Your task to perform on an android device: Go to CNN.com Image 0: 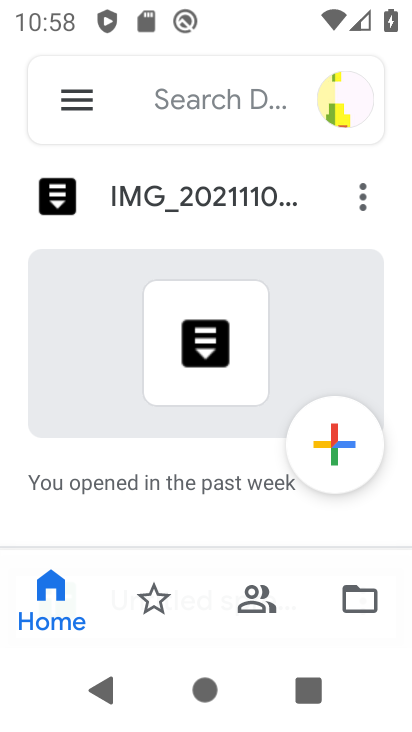
Step 0: press home button
Your task to perform on an android device: Go to CNN.com Image 1: 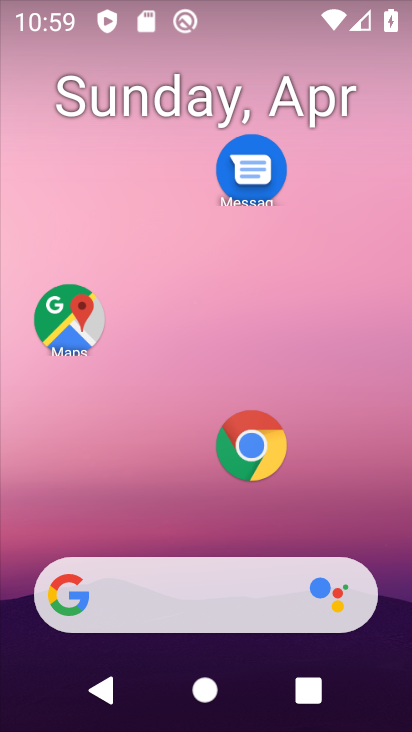
Step 1: drag from (174, 598) to (195, 128)
Your task to perform on an android device: Go to CNN.com Image 2: 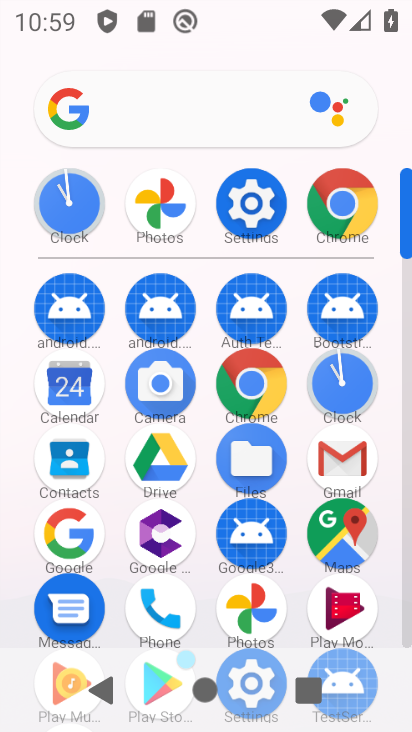
Step 2: click (343, 205)
Your task to perform on an android device: Go to CNN.com Image 3: 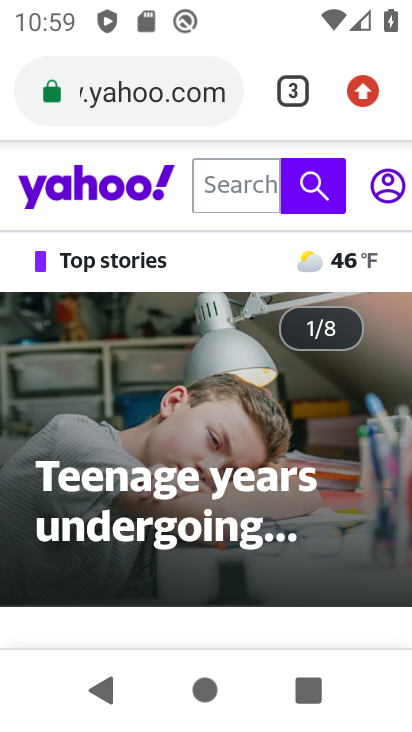
Step 3: click (358, 101)
Your task to perform on an android device: Go to CNN.com Image 4: 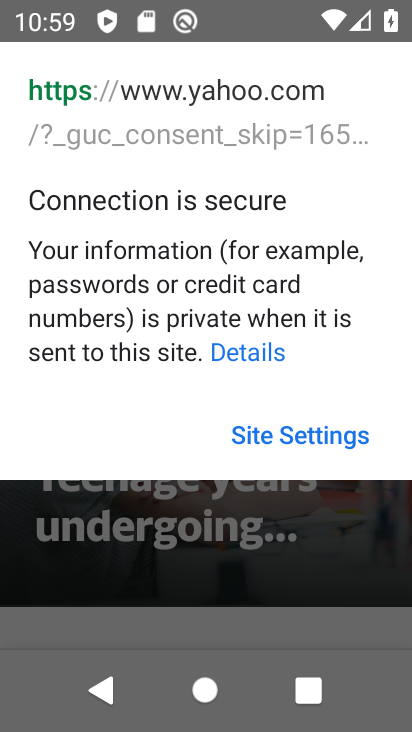
Step 4: press back button
Your task to perform on an android device: Go to CNN.com Image 5: 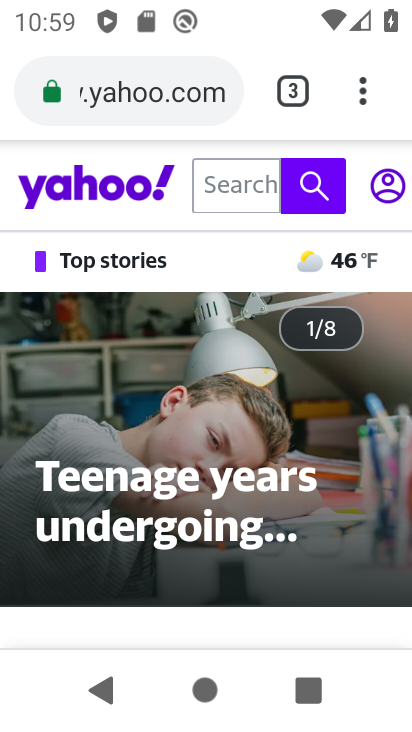
Step 5: drag from (360, 98) to (63, 286)
Your task to perform on an android device: Go to CNN.com Image 6: 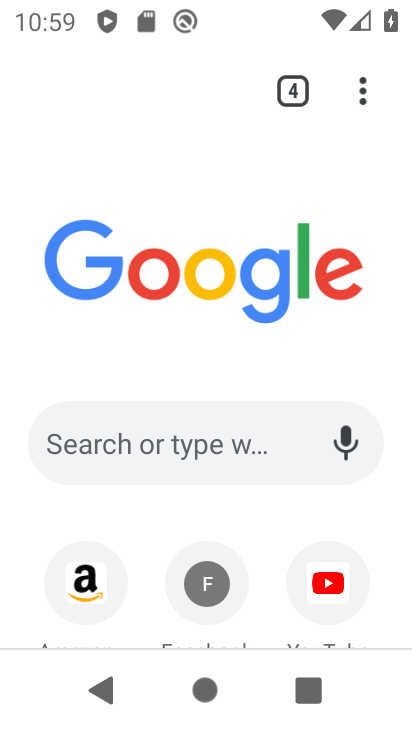
Step 6: click (134, 441)
Your task to perform on an android device: Go to CNN.com Image 7: 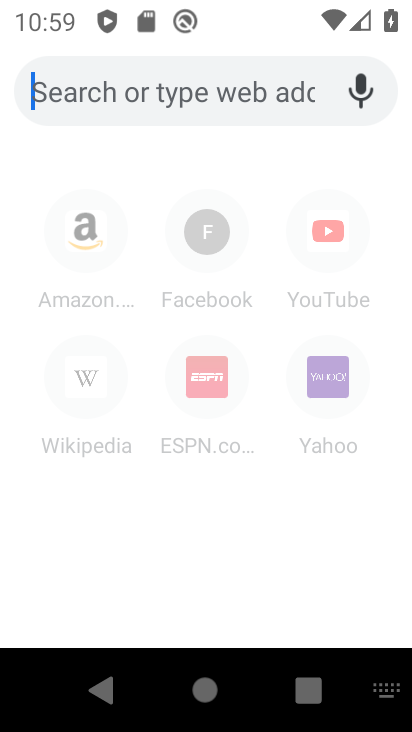
Step 7: type "cnn.com"
Your task to perform on an android device: Go to CNN.com Image 8: 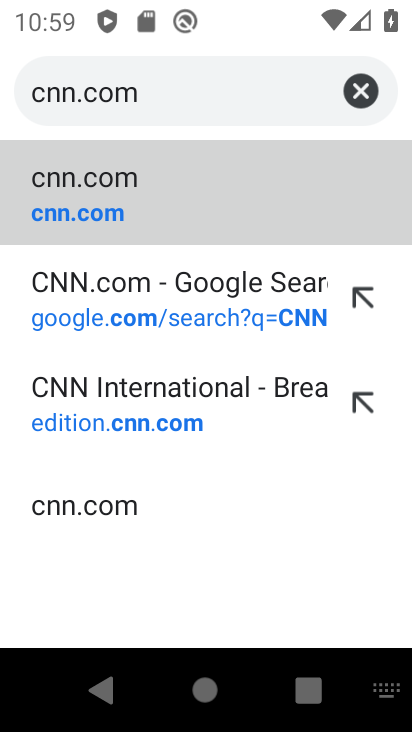
Step 8: click (127, 195)
Your task to perform on an android device: Go to CNN.com Image 9: 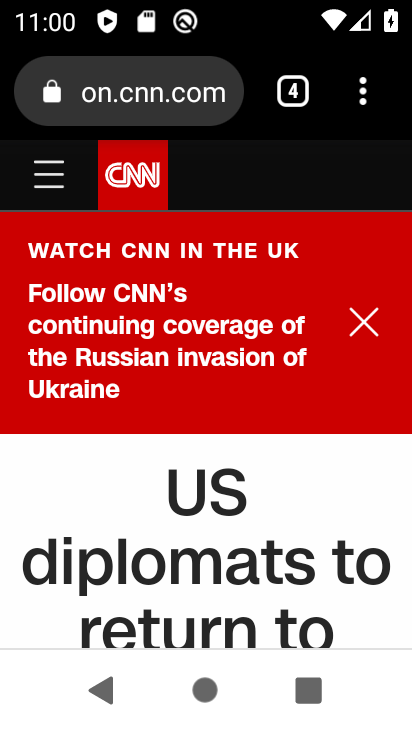
Step 9: task complete